Your task to perform on an android device: turn off notifications settings in the gmail app Image 0: 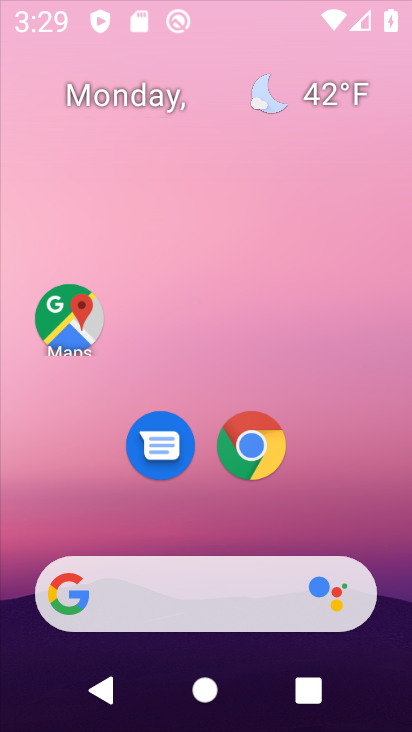
Step 0: drag from (4, 486) to (285, 33)
Your task to perform on an android device: turn off notifications settings in the gmail app Image 1: 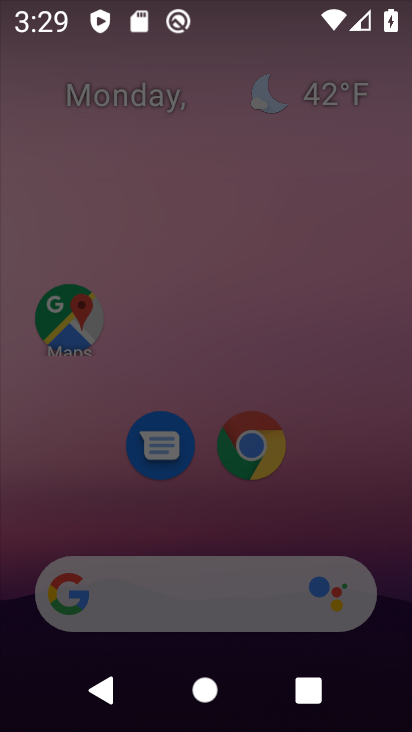
Step 1: press home button
Your task to perform on an android device: turn off notifications settings in the gmail app Image 2: 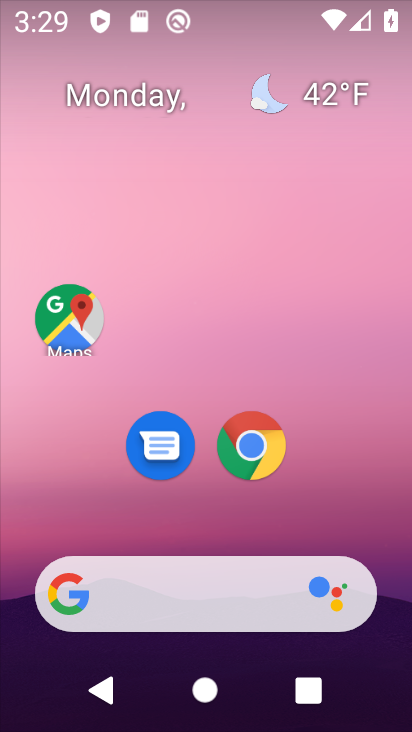
Step 2: drag from (8, 457) to (243, 29)
Your task to perform on an android device: turn off notifications settings in the gmail app Image 3: 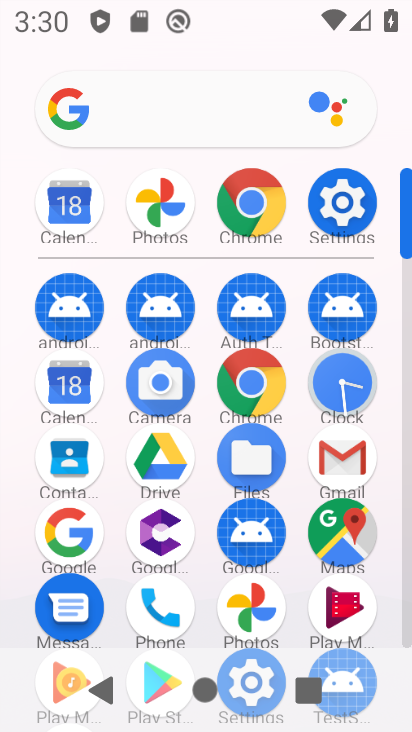
Step 3: click (362, 472)
Your task to perform on an android device: turn off notifications settings in the gmail app Image 4: 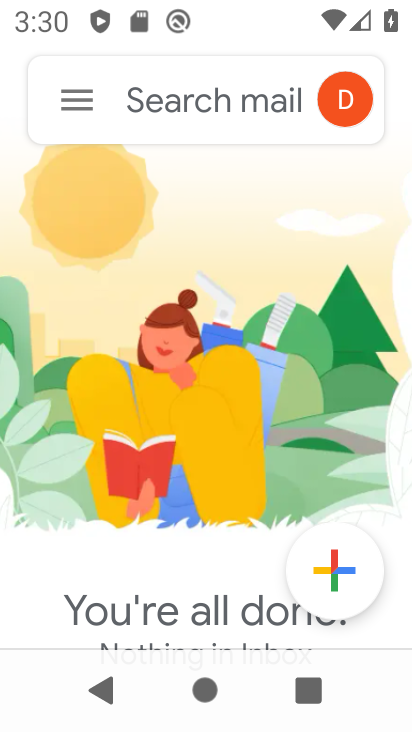
Step 4: click (68, 105)
Your task to perform on an android device: turn off notifications settings in the gmail app Image 5: 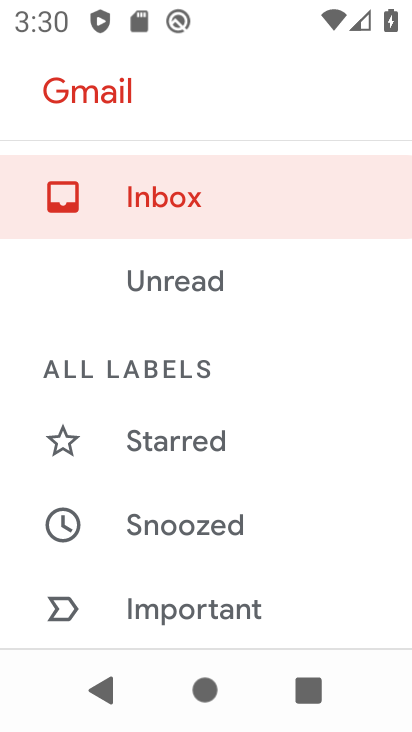
Step 5: drag from (132, 604) to (259, 81)
Your task to perform on an android device: turn off notifications settings in the gmail app Image 6: 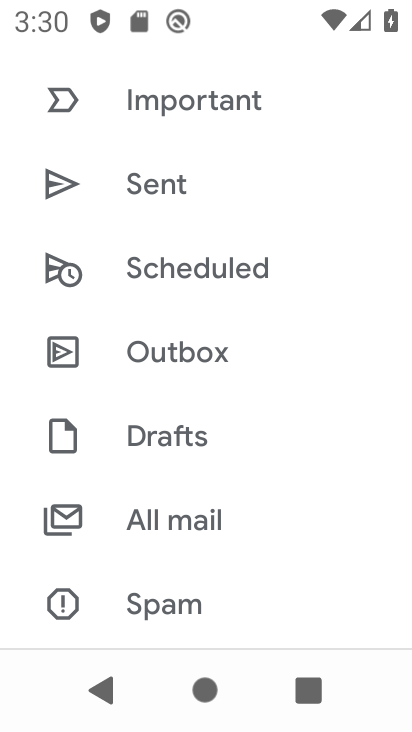
Step 6: drag from (81, 529) to (192, 57)
Your task to perform on an android device: turn off notifications settings in the gmail app Image 7: 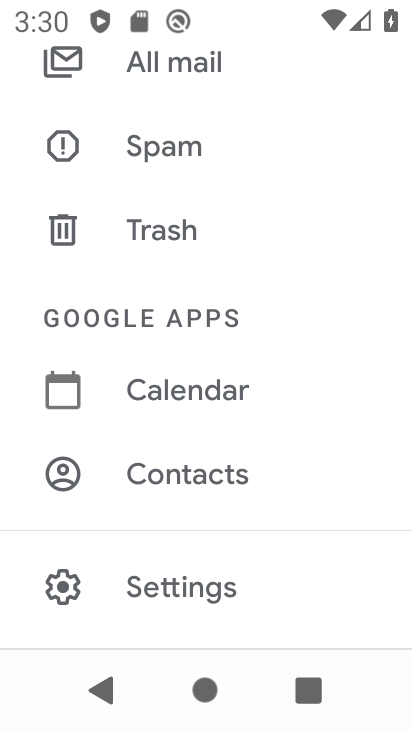
Step 7: click (153, 585)
Your task to perform on an android device: turn off notifications settings in the gmail app Image 8: 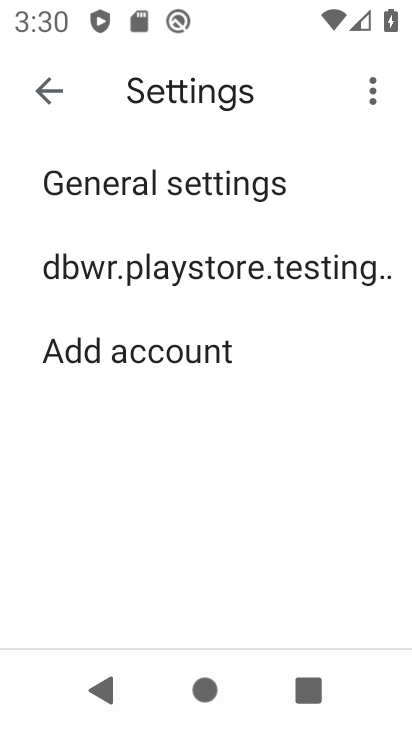
Step 8: click (208, 288)
Your task to perform on an android device: turn off notifications settings in the gmail app Image 9: 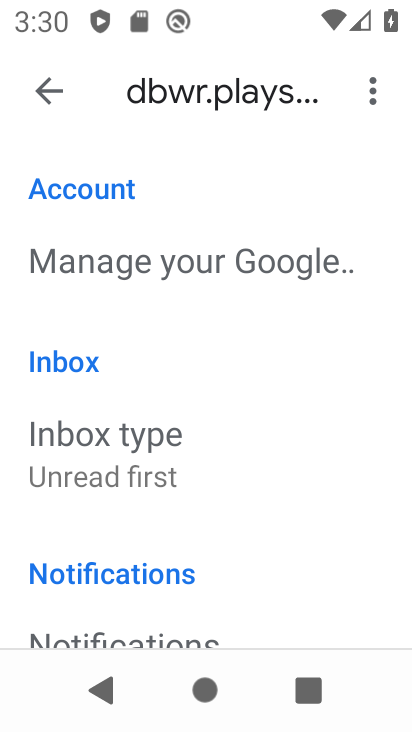
Step 9: drag from (221, 613) to (297, 219)
Your task to perform on an android device: turn off notifications settings in the gmail app Image 10: 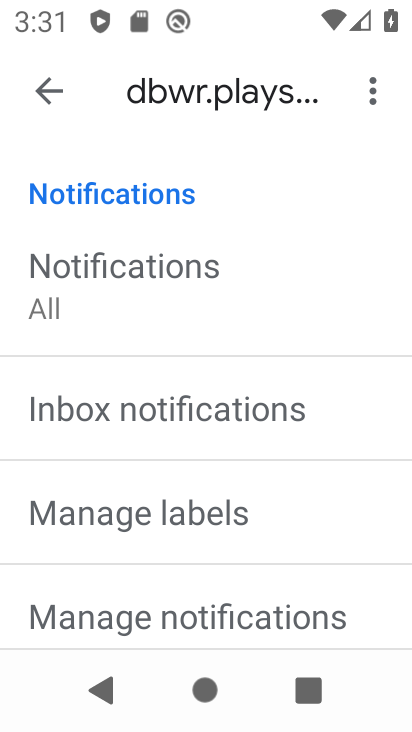
Step 10: click (138, 322)
Your task to perform on an android device: turn off notifications settings in the gmail app Image 11: 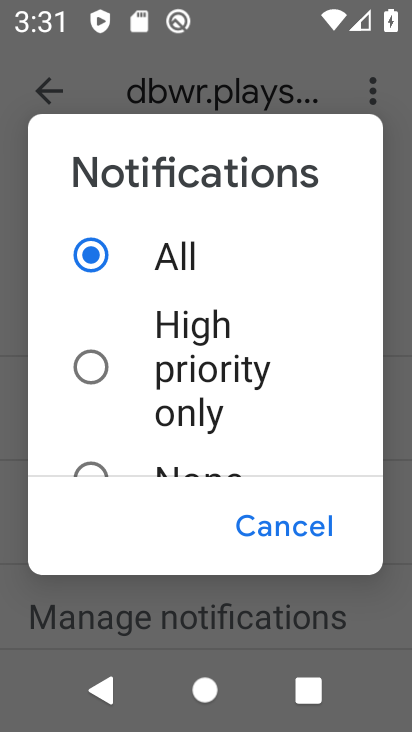
Step 11: click (91, 467)
Your task to perform on an android device: turn off notifications settings in the gmail app Image 12: 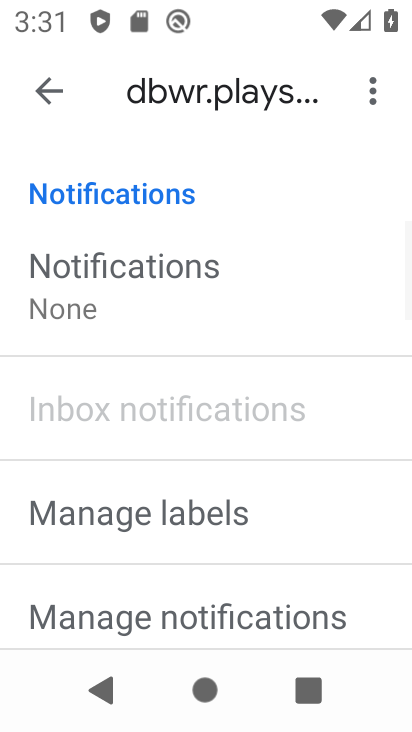
Step 12: task complete